Your task to perform on an android device: turn off airplane mode Image 0: 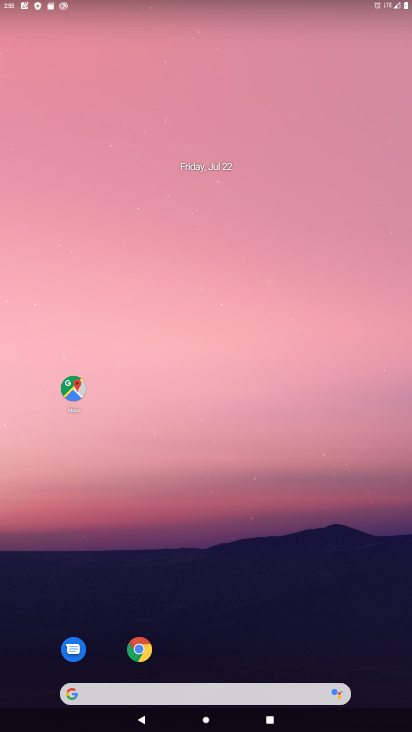
Step 0: drag from (165, 648) to (269, 125)
Your task to perform on an android device: turn off airplane mode Image 1: 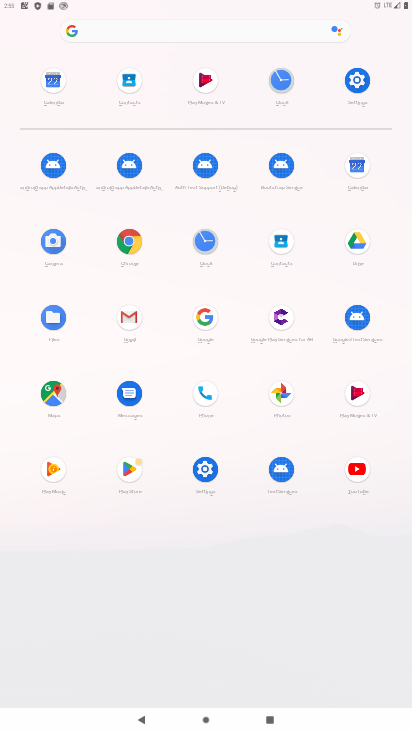
Step 1: click (198, 475)
Your task to perform on an android device: turn off airplane mode Image 2: 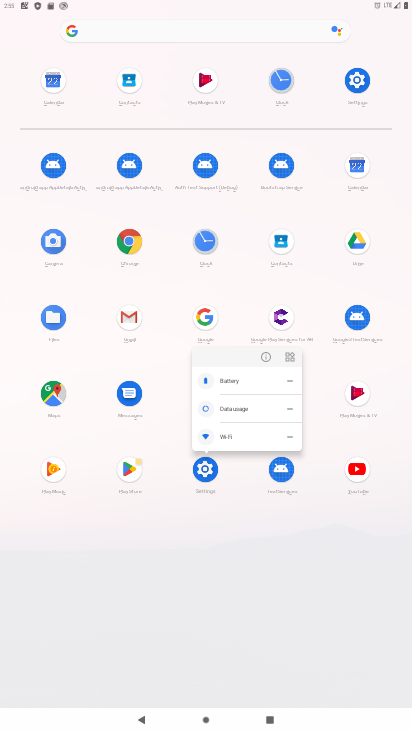
Step 2: click (255, 356)
Your task to perform on an android device: turn off airplane mode Image 3: 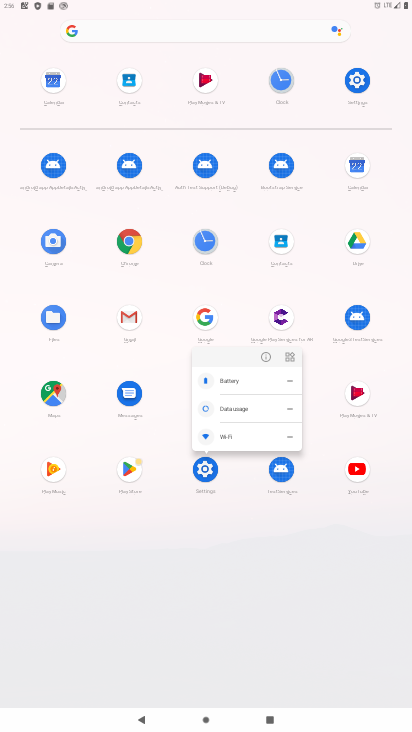
Step 3: click (265, 356)
Your task to perform on an android device: turn off airplane mode Image 4: 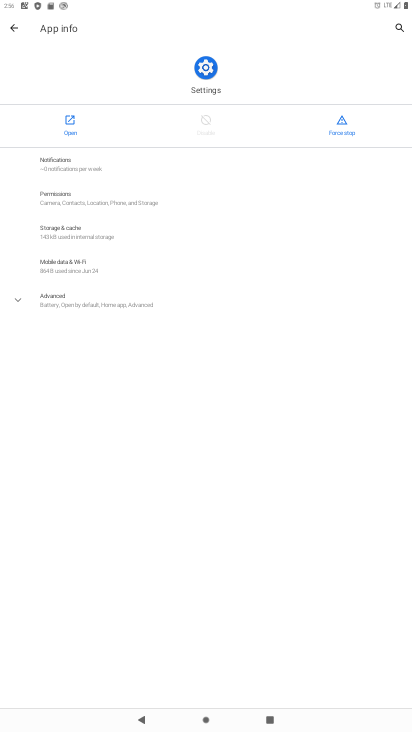
Step 4: click (63, 116)
Your task to perform on an android device: turn off airplane mode Image 5: 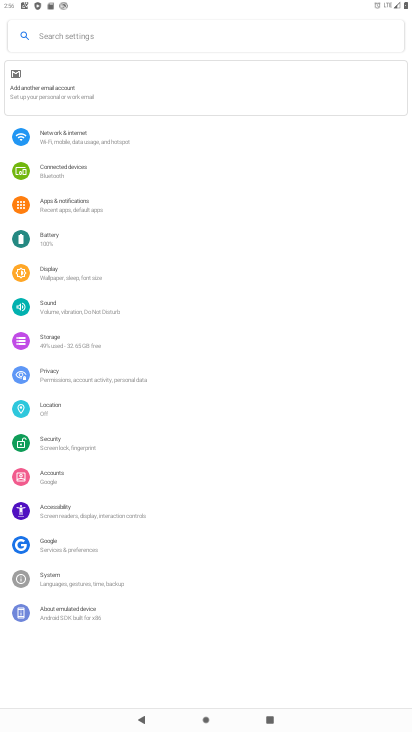
Step 5: click (81, 138)
Your task to perform on an android device: turn off airplane mode Image 6: 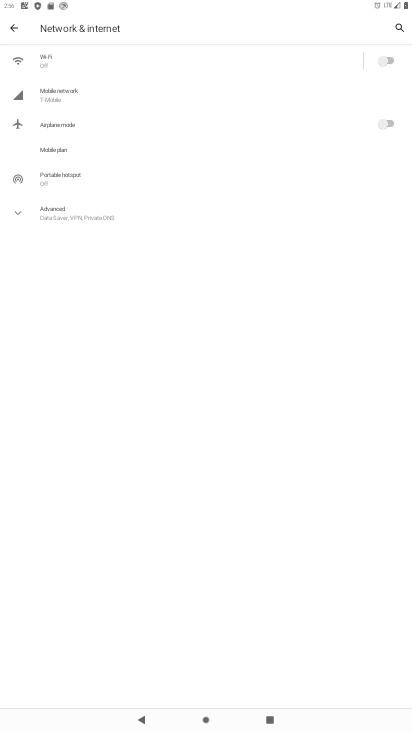
Step 6: task complete